Your task to perform on an android device: Go to display settings Image 0: 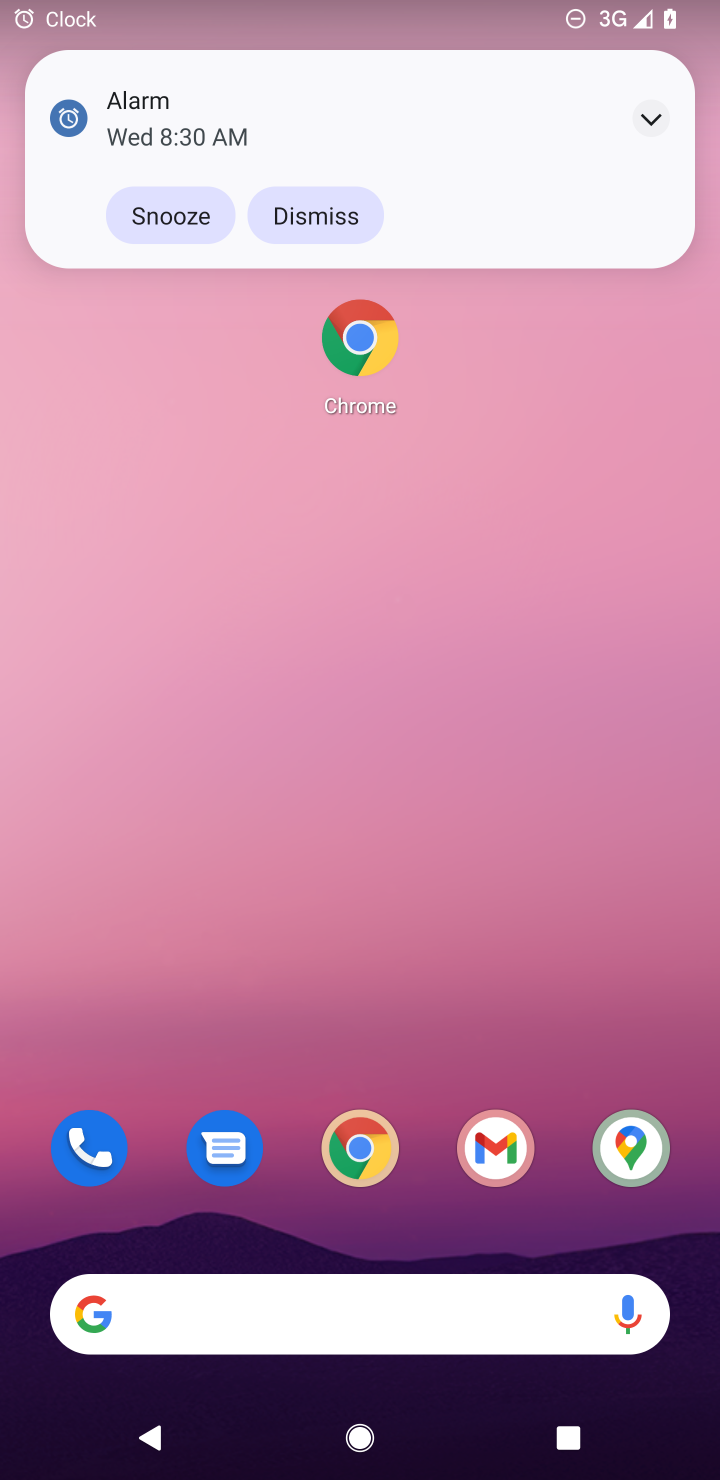
Step 0: drag from (492, 986) to (482, 222)
Your task to perform on an android device: Go to display settings Image 1: 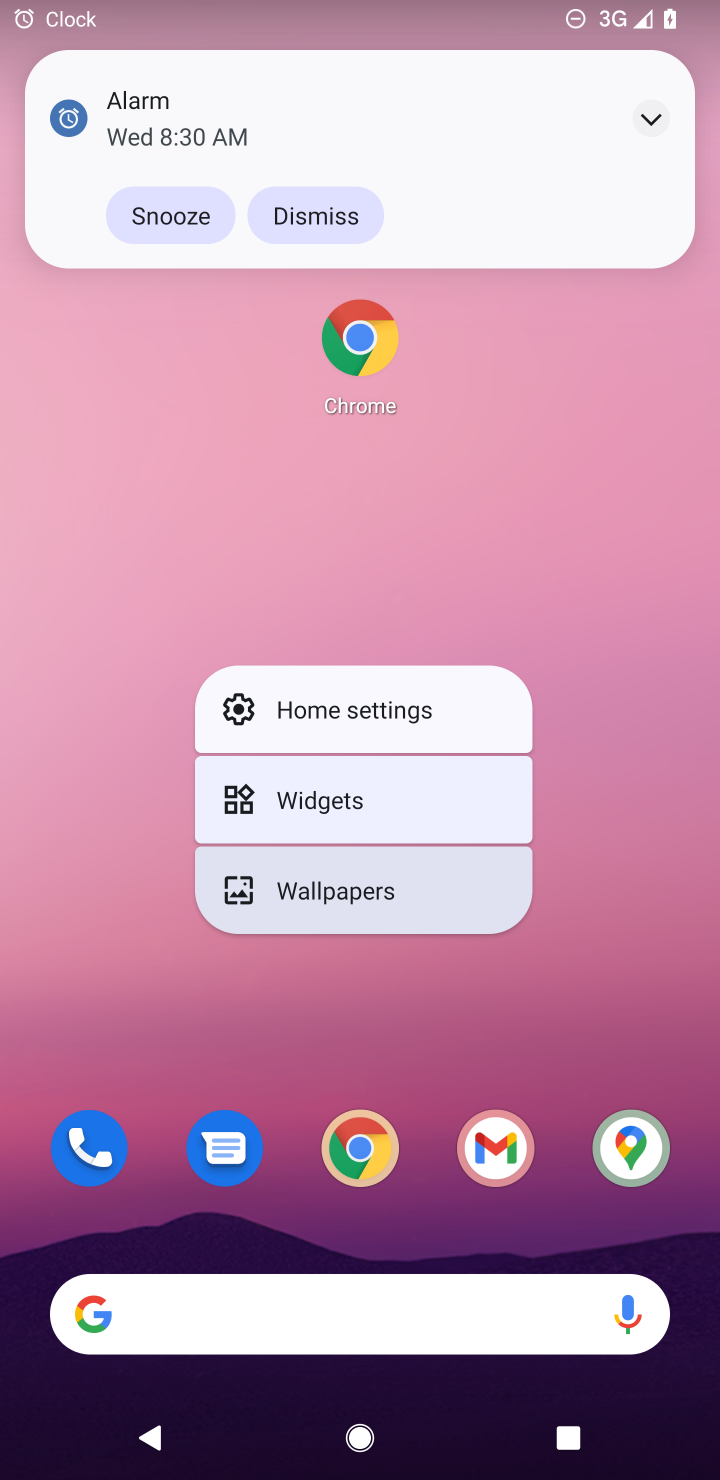
Step 1: click (332, 231)
Your task to perform on an android device: Go to display settings Image 2: 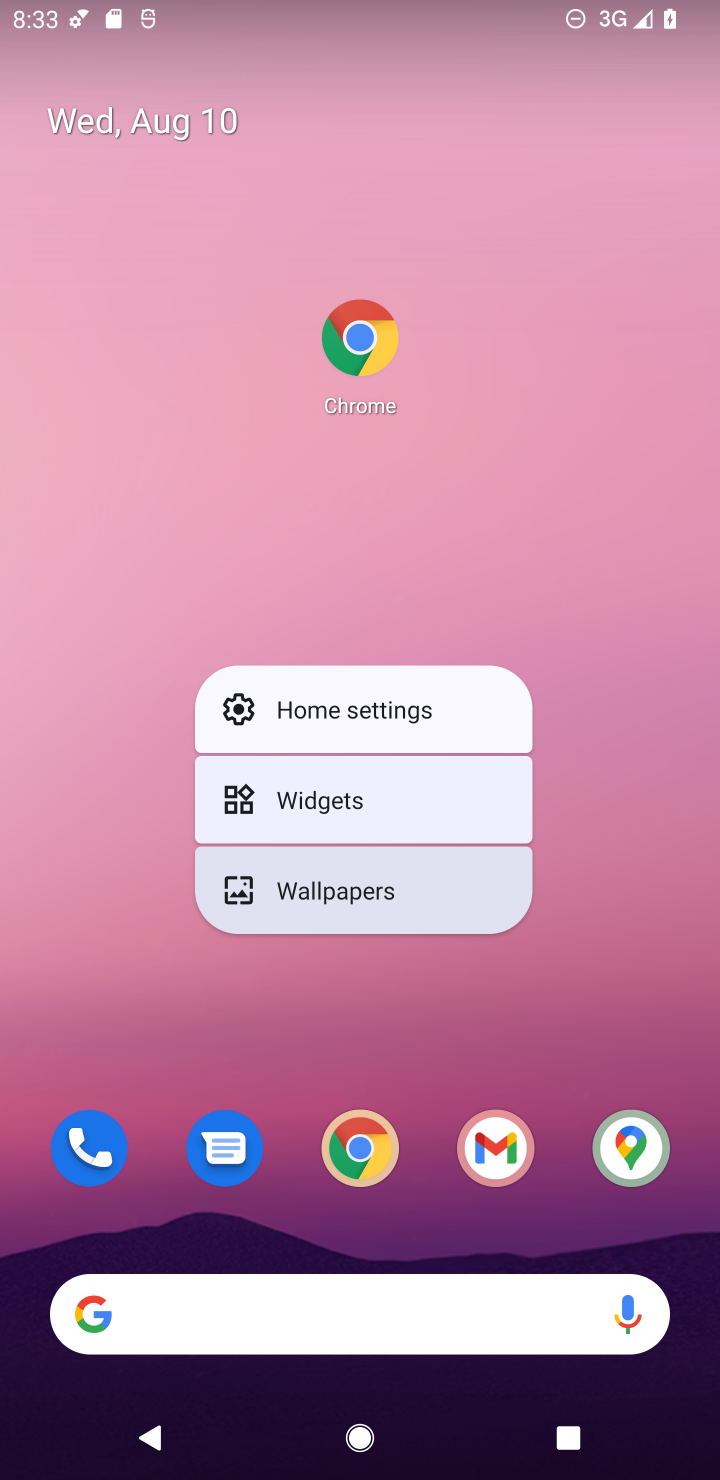
Step 2: click (129, 1047)
Your task to perform on an android device: Go to display settings Image 3: 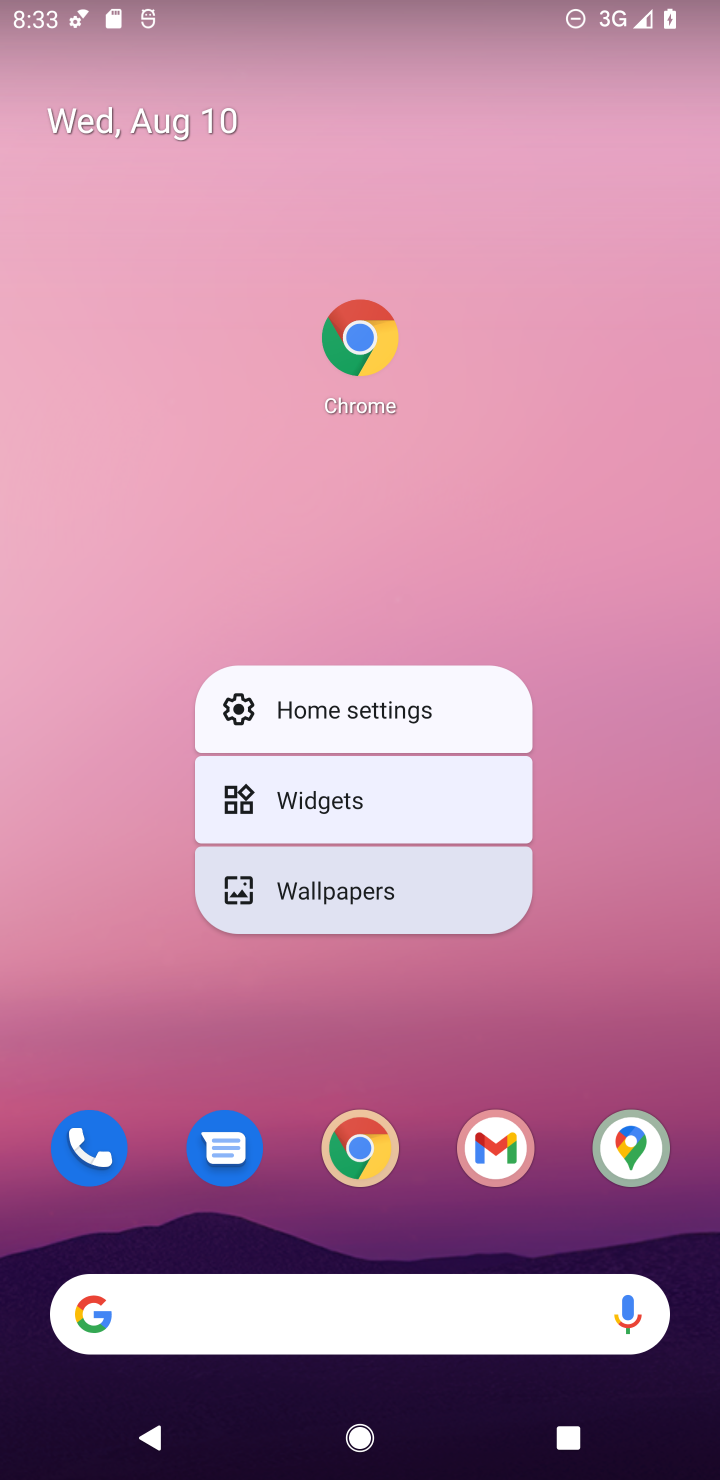
Step 3: drag from (129, 1047) to (161, 622)
Your task to perform on an android device: Go to display settings Image 4: 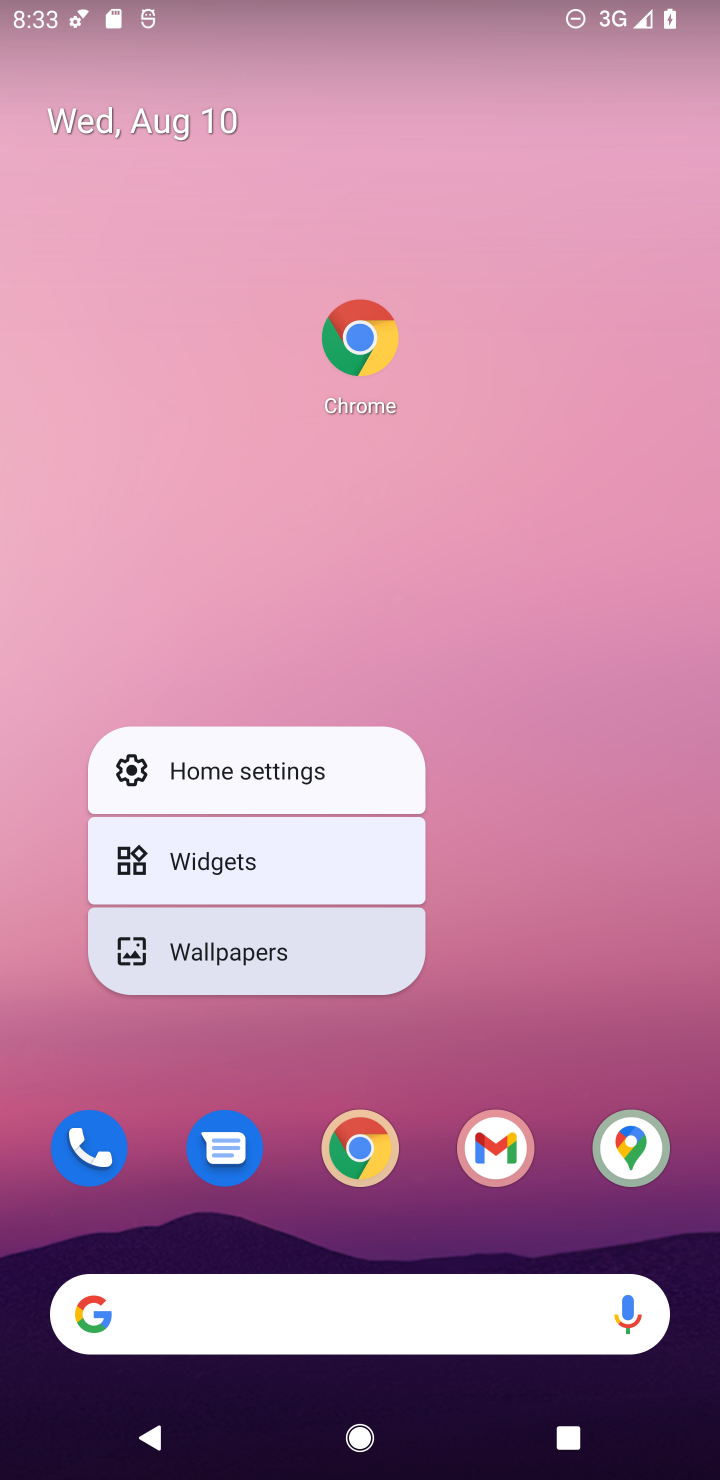
Step 4: drag from (546, 1180) to (548, 258)
Your task to perform on an android device: Go to display settings Image 5: 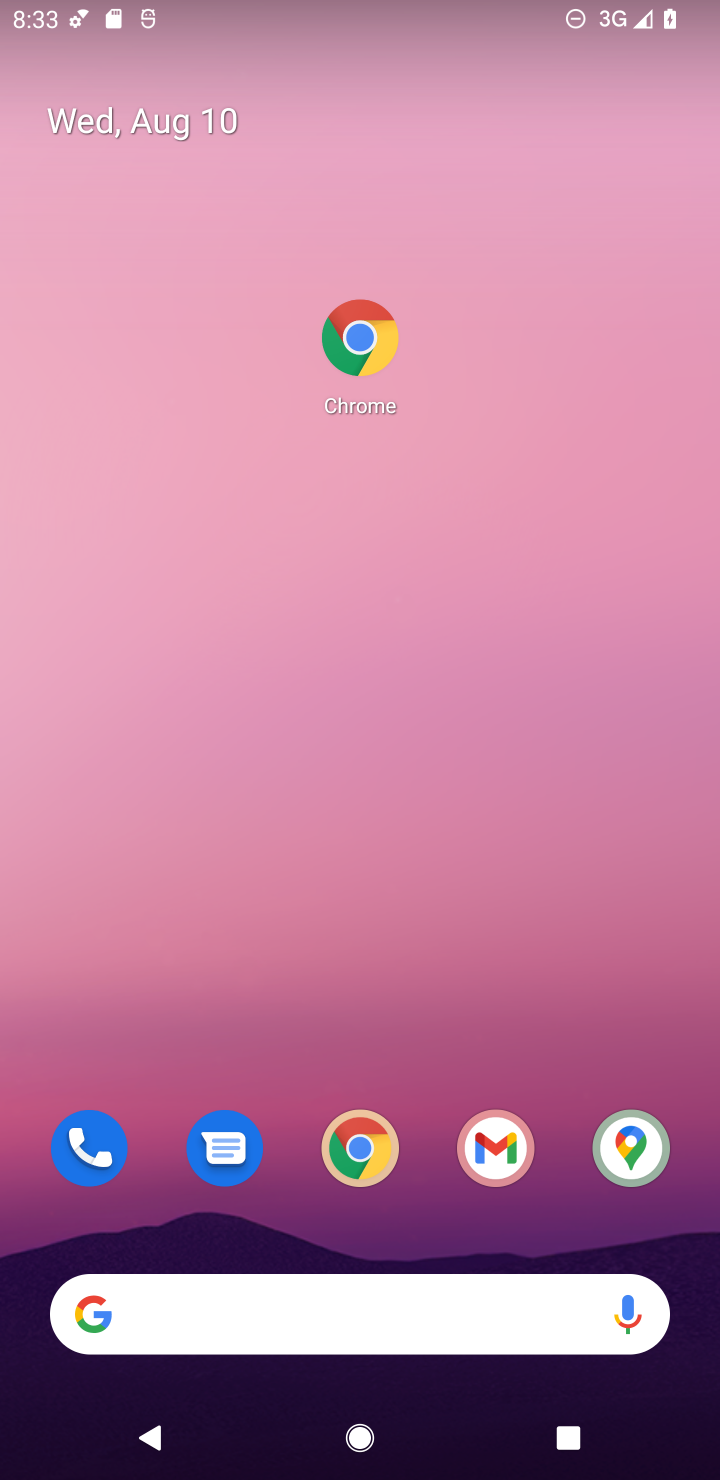
Step 5: drag from (555, 1232) to (626, 789)
Your task to perform on an android device: Go to display settings Image 6: 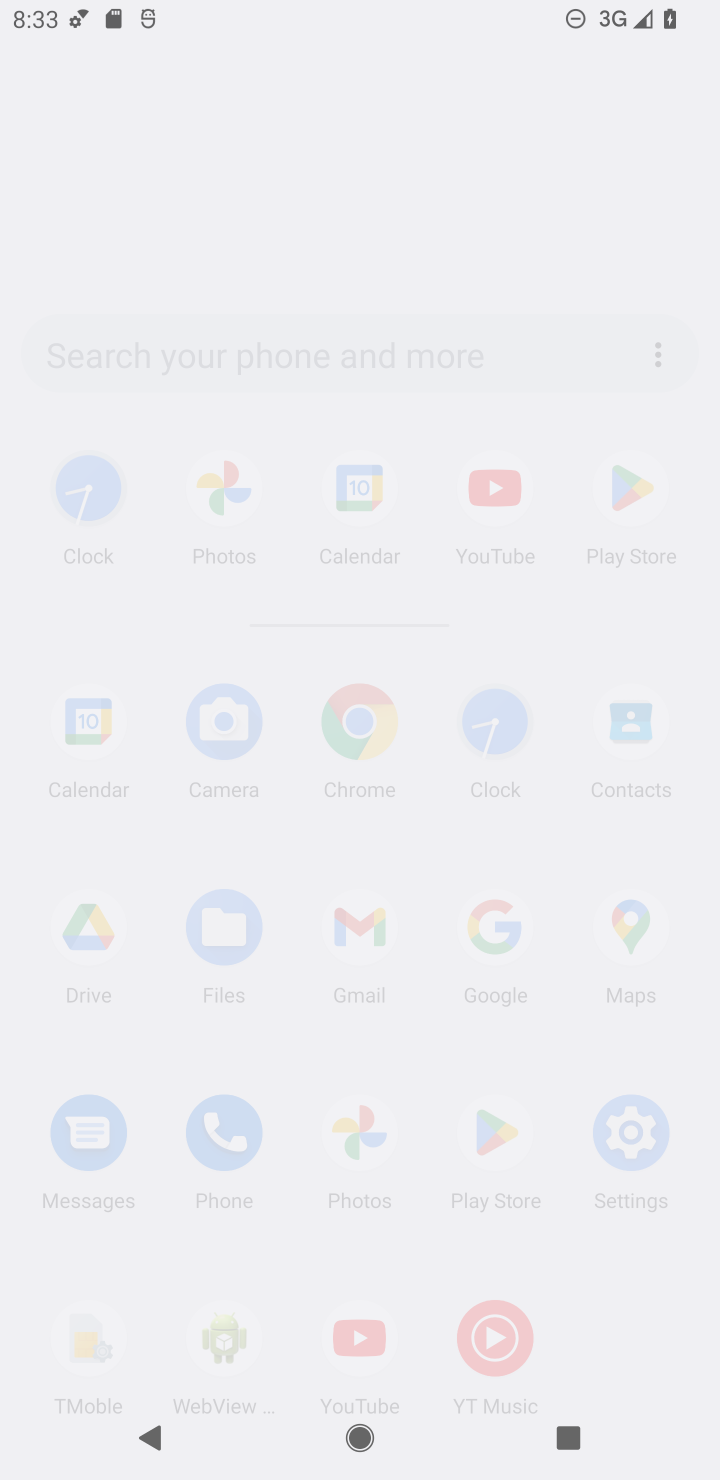
Step 6: click (626, 789)
Your task to perform on an android device: Go to display settings Image 7: 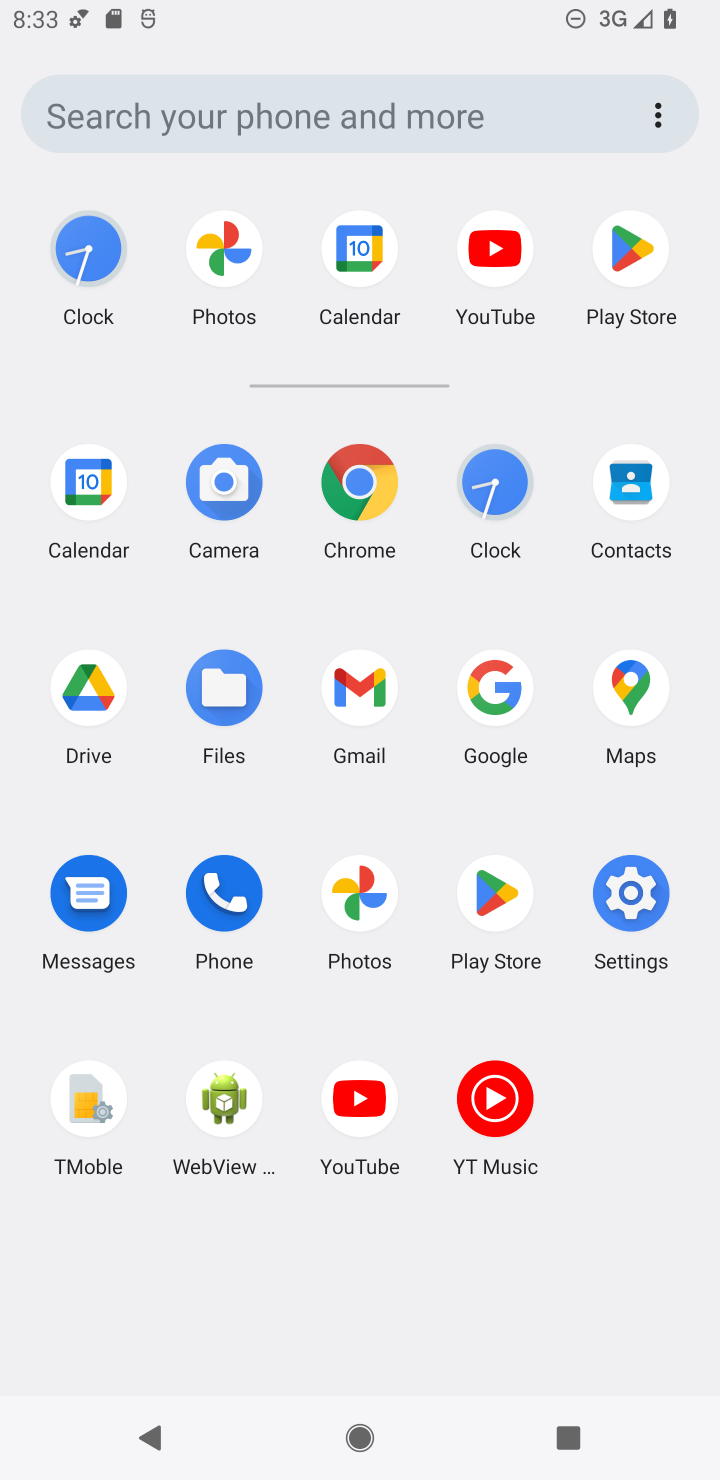
Step 7: click (606, 882)
Your task to perform on an android device: Go to display settings Image 8: 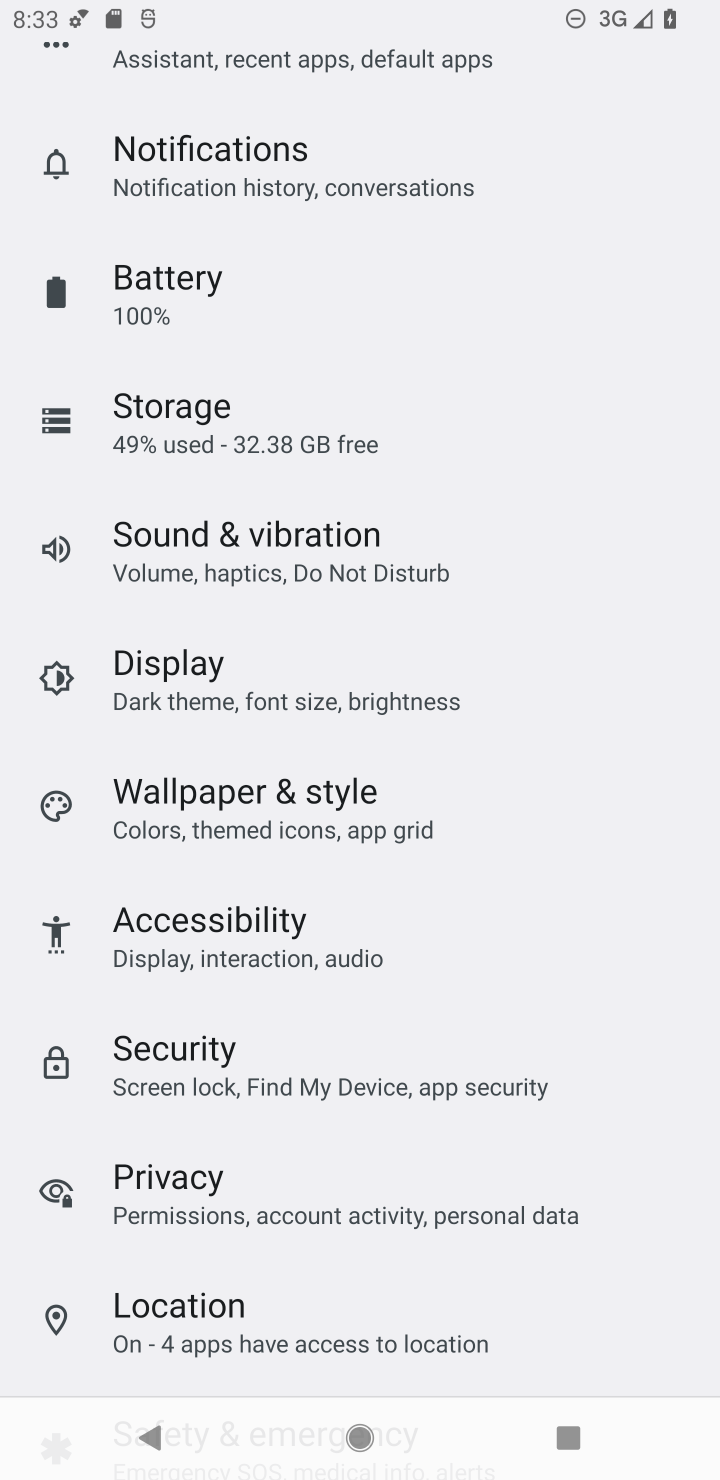
Step 8: click (203, 663)
Your task to perform on an android device: Go to display settings Image 9: 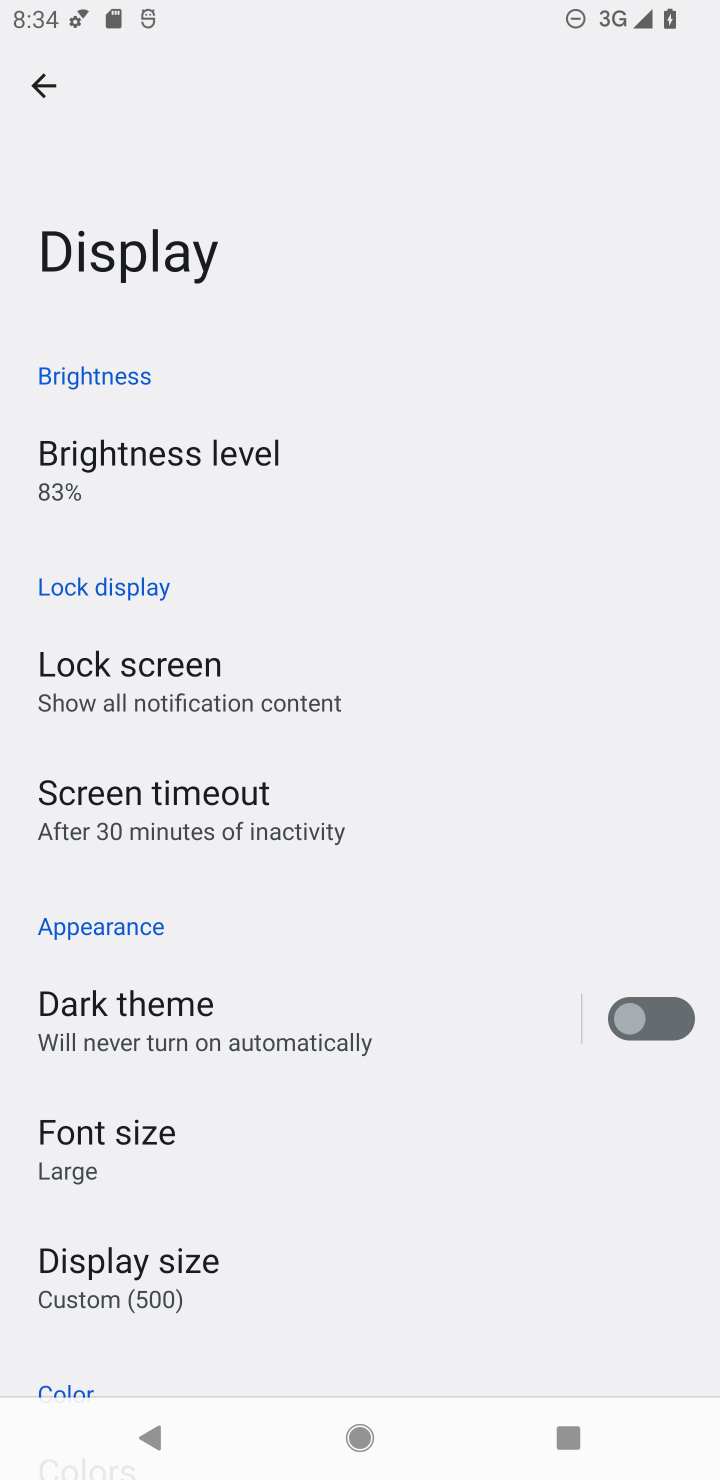
Step 9: task complete